Your task to perform on an android device: toggle show notifications on the lock screen Image 0: 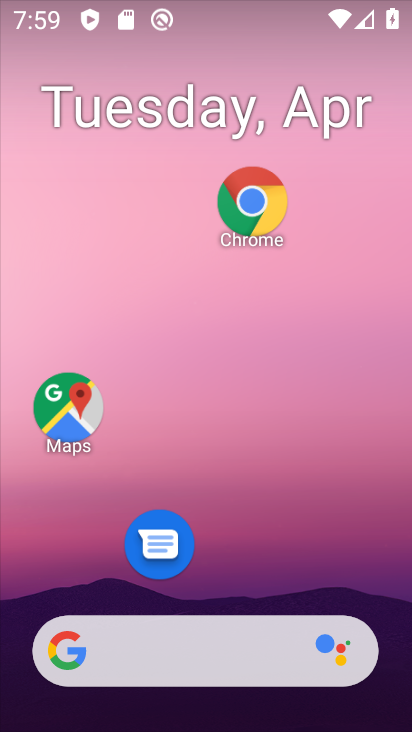
Step 0: drag from (272, 485) to (298, 48)
Your task to perform on an android device: toggle show notifications on the lock screen Image 1: 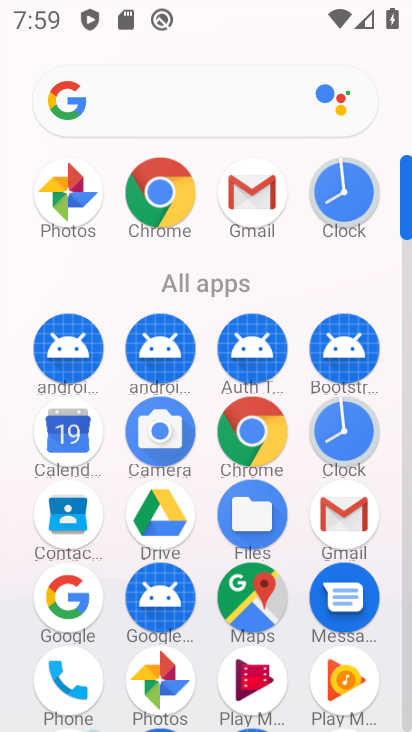
Step 1: drag from (198, 481) to (320, 95)
Your task to perform on an android device: toggle show notifications on the lock screen Image 2: 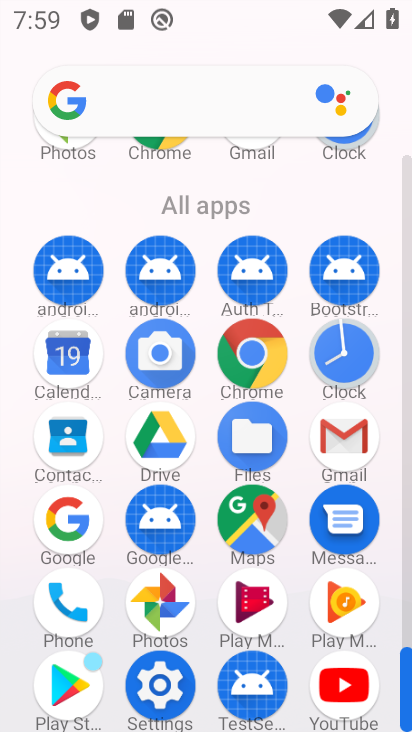
Step 2: click (174, 672)
Your task to perform on an android device: toggle show notifications on the lock screen Image 3: 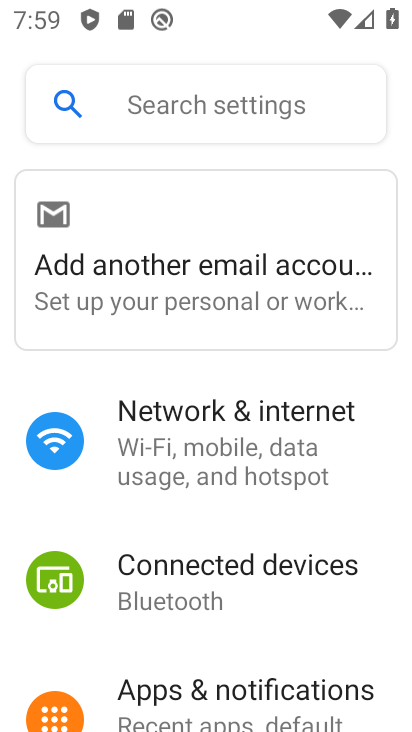
Step 3: click (212, 692)
Your task to perform on an android device: toggle show notifications on the lock screen Image 4: 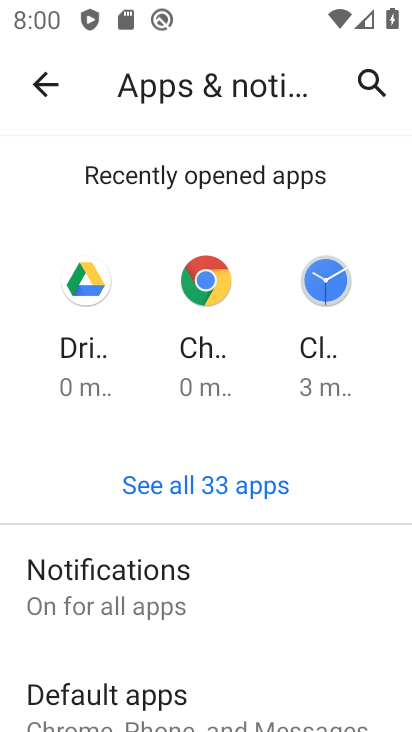
Step 4: click (131, 598)
Your task to perform on an android device: toggle show notifications on the lock screen Image 5: 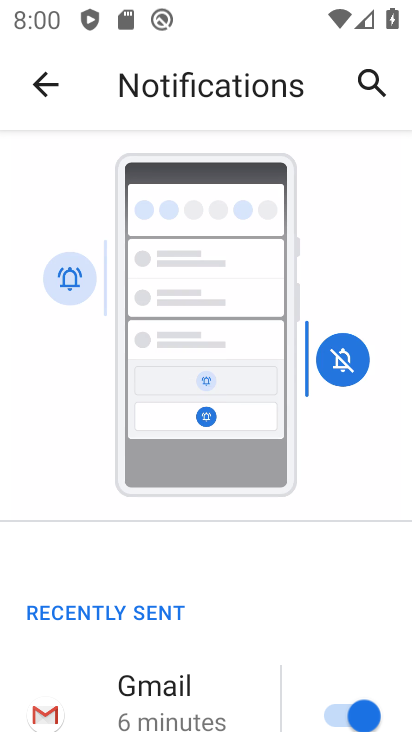
Step 5: drag from (167, 658) to (302, 159)
Your task to perform on an android device: toggle show notifications on the lock screen Image 6: 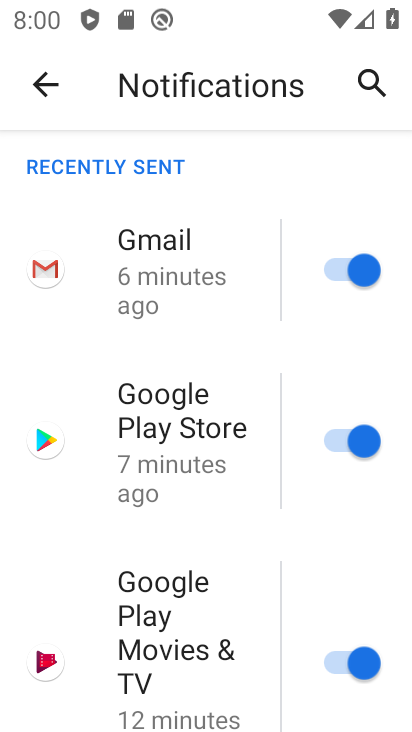
Step 6: drag from (167, 710) to (220, 120)
Your task to perform on an android device: toggle show notifications on the lock screen Image 7: 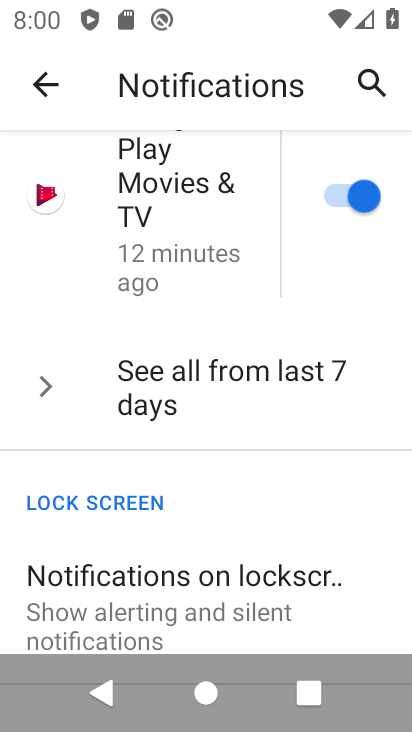
Step 7: click (193, 586)
Your task to perform on an android device: toggle show notifications on the lock screen Image 8: 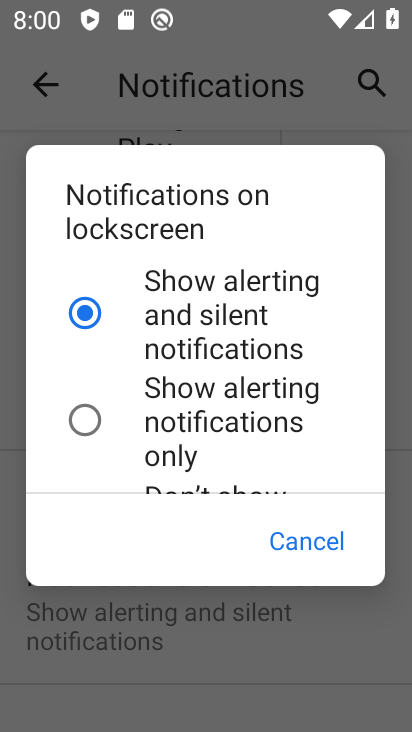
Step 8: click (91, 297)
Your task to perform on an android device: toggle show notifications on the lock screen Image 9: 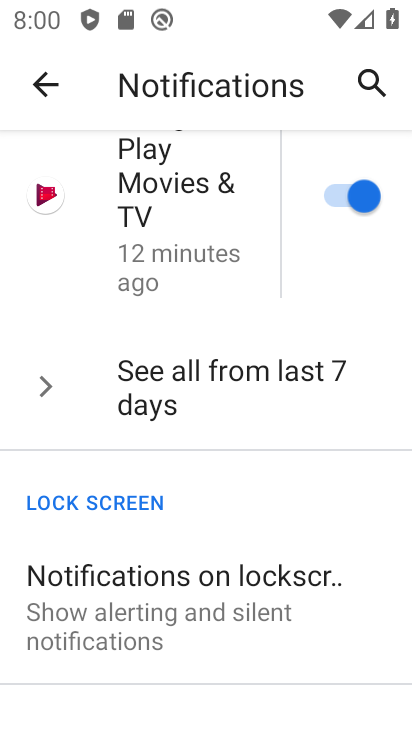
Step 9: task complete